Your task to perform on an android device: Open Chrome and go to the settings page Image 0: 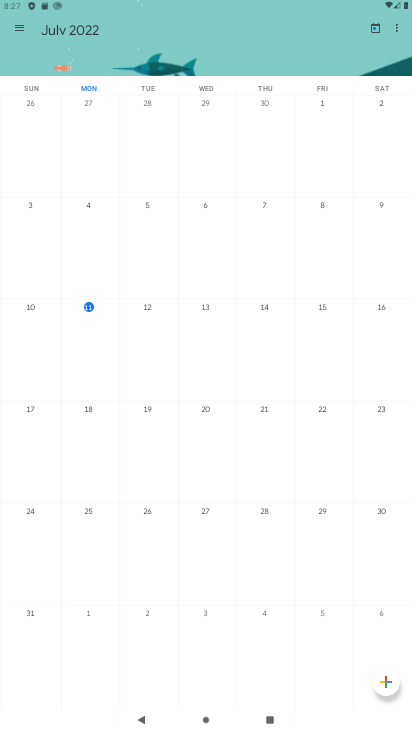
Step 0: press home button
Your task to perform on an android device: Open Chrome and go to the settings page Image 1: 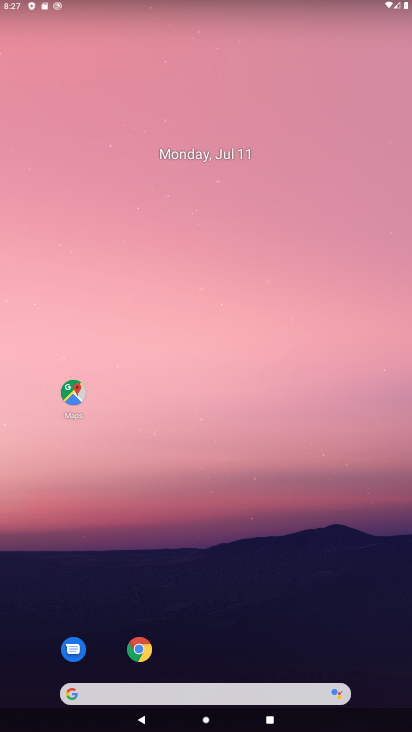
Step 1: drag from (175, 671) to (279, 148)
Your task to perform on an android device: Open Chrome and go to the settings page Image 2: 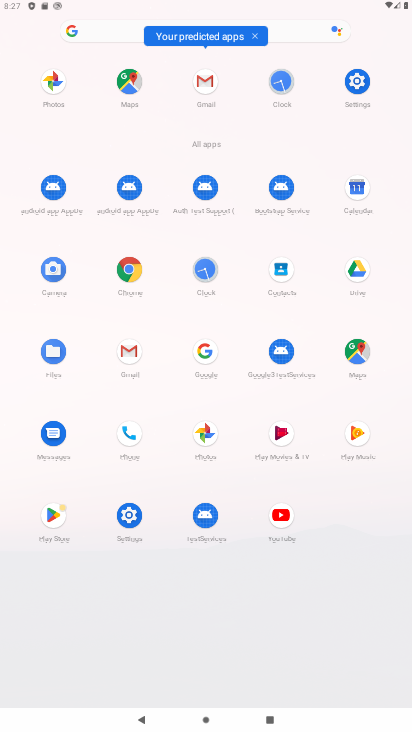
Step 2: click (126, 271)
Your task to perform on an android device: Open Chrome and go to the settings page Image 3: 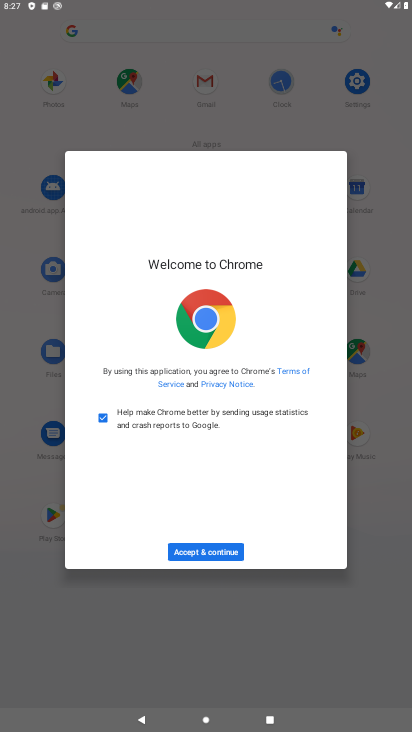
Step 3: click (220, 549)
Your task to perform on an android device: Open Chrome and go to the settings page Image 4: 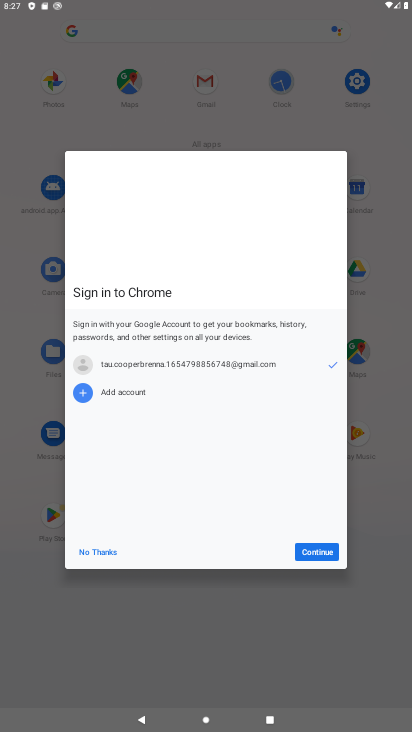
Step 4: click (334, 558)
Your task to perform on an android device: Open Chrome and go to the settings page Image 5: 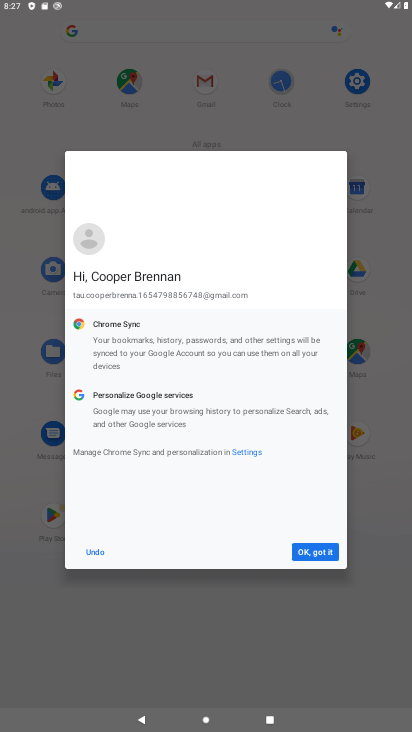
Step 5: click (330, 550)
Your task to perform on an android device: Open Chrome and go to the settings page Image 6: 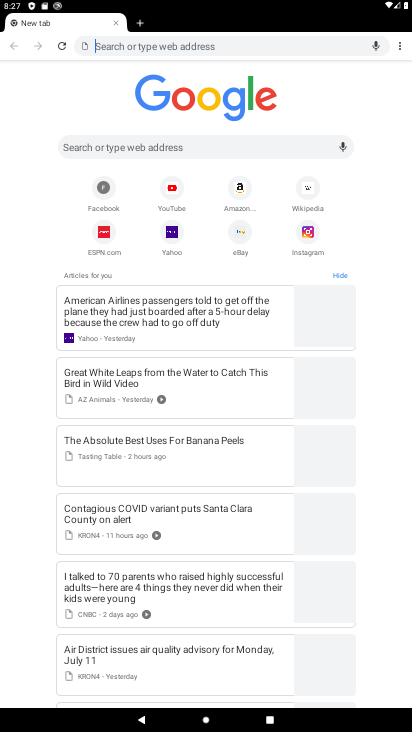
Step 6: task complete